Your task to perform on an android device: open app "Microsoft Authenticator" Image 0: 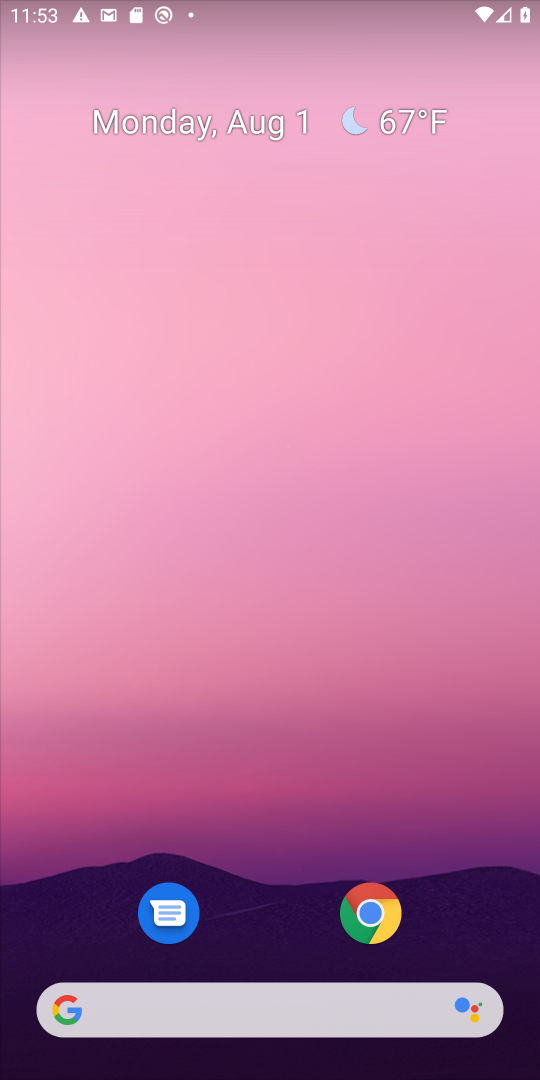
Step 0: drag from (514, 999) to (495, 117)
Your task to perform on an android device: open app "Microsoft Authenticator" Image 1: 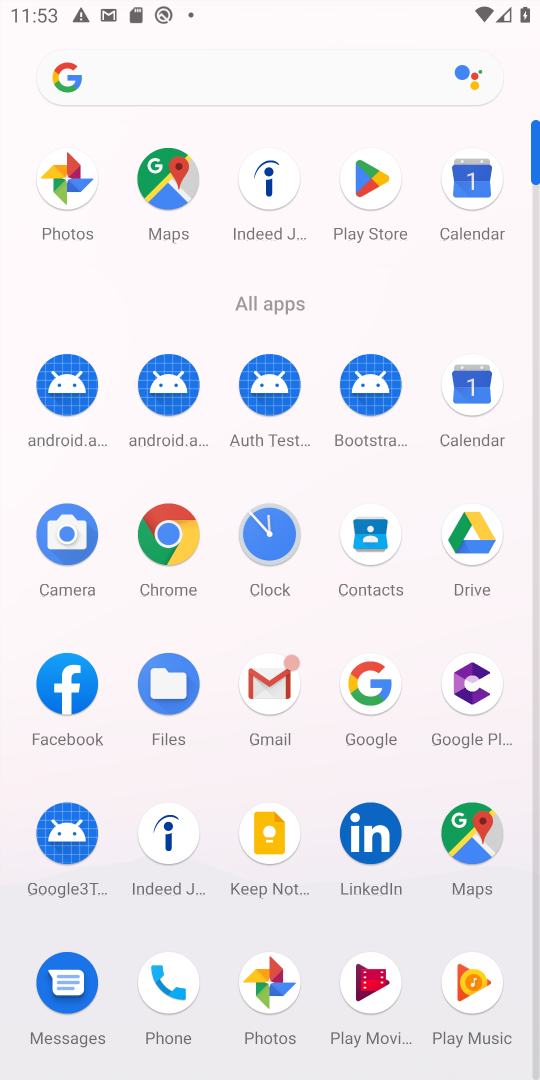
Step 1: click (375, 183)
Your task to perform on an android device: open app "Microsoft Authenticator" Image 2: 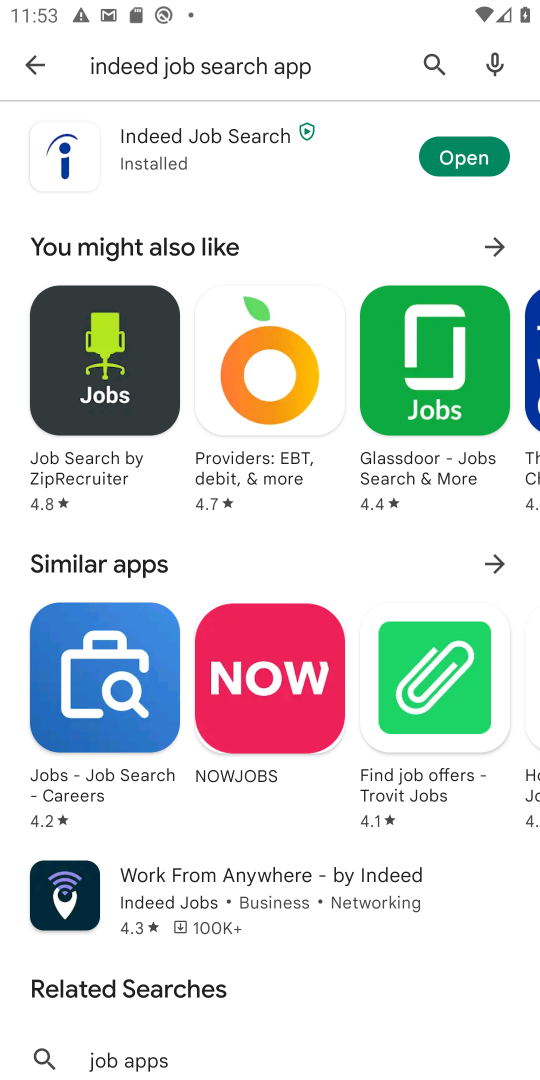
Step 2: click (432, 56)
Your task to perform on an android device: open app "Microsoft Authenticator" Image 3: 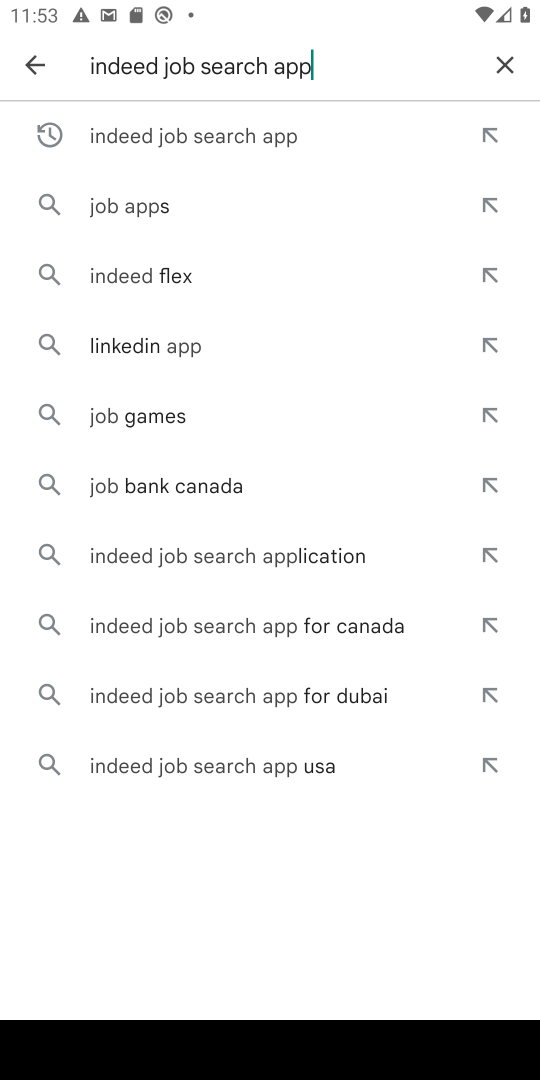
Step 3: click (506, 49)
Your task to perform on an android device: open app "Microsoft Authenticator" Image 4: 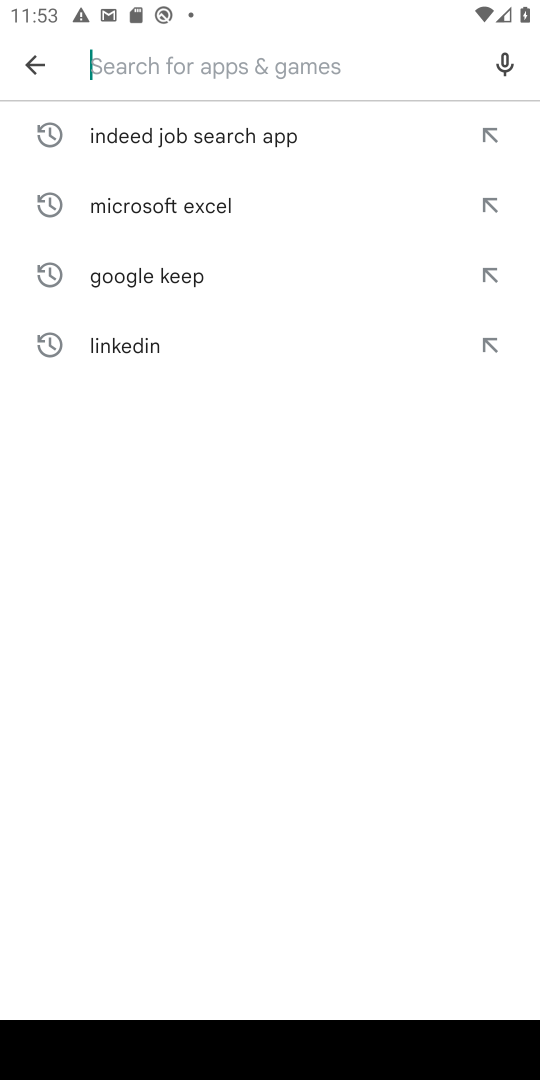
Step 4: type "Microsoft Authenticator"
Your task to perform on an android device: open app "Microsoft Authenticator" Image 5: 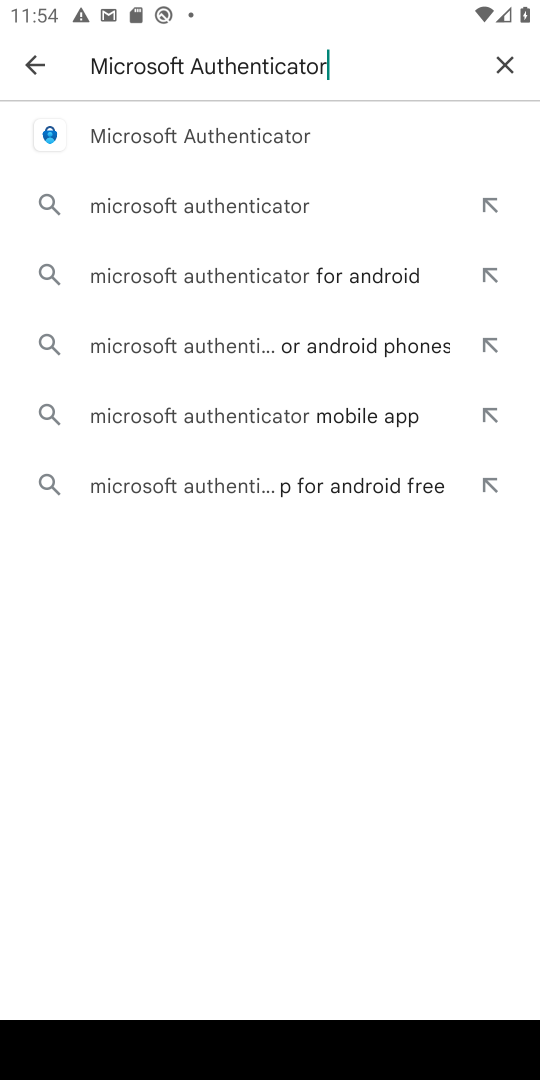
Step 5: click (219, 133)
Your task to perform on an android device: open app "Microsoft Authenticator" Image 6: 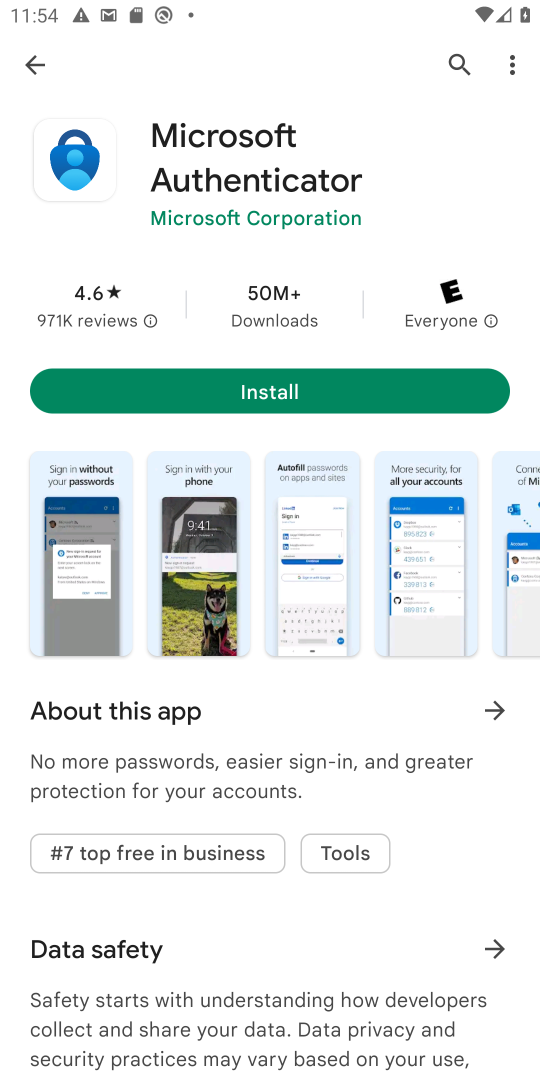
Step 6: task complete